Your task to perform on an android device: Go to Maps Image 0: 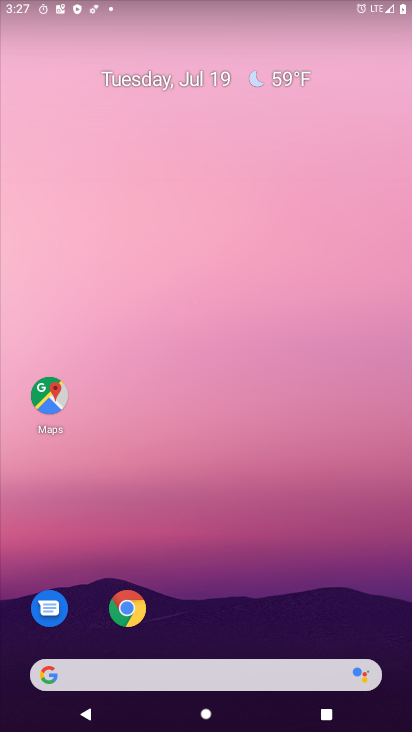
Step 0: click (49, 395)
Your task to perform on an android device: Go to Maps Image 1: 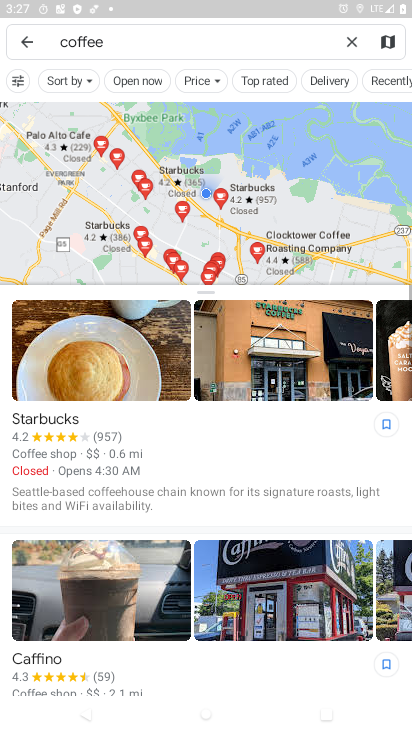
Step 1: task complete